Your task to perform on an android device: check battery use Image 0: 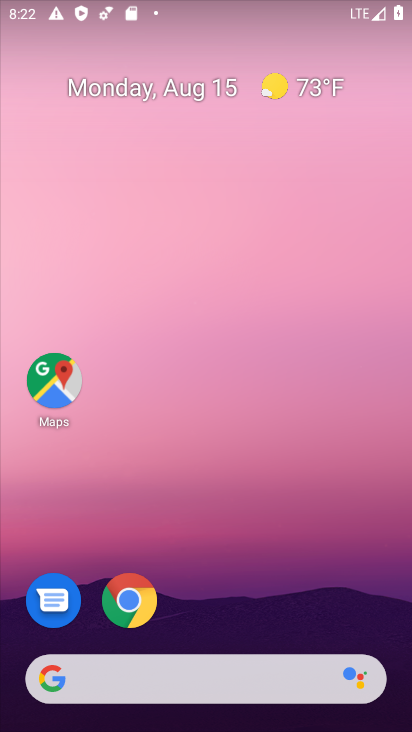
Step 0: drag from (218, 527) to (242, 159)
Your task to perform on an android device: check battery use Image 1: 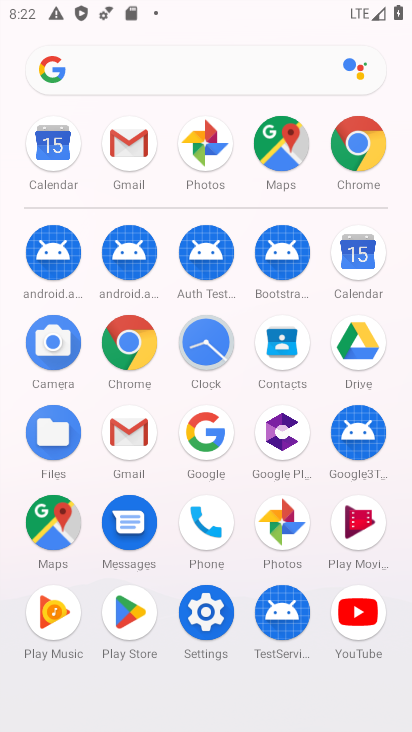
Step 1: click (210, 607)
Your task to perform on an android device: check battery use Image 2: 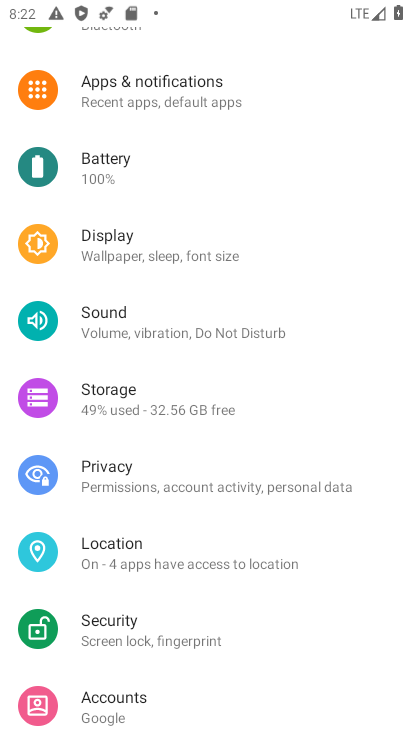
Step 2: click (107, 158)
Your task to perform on an android device: check battery use Image 3: 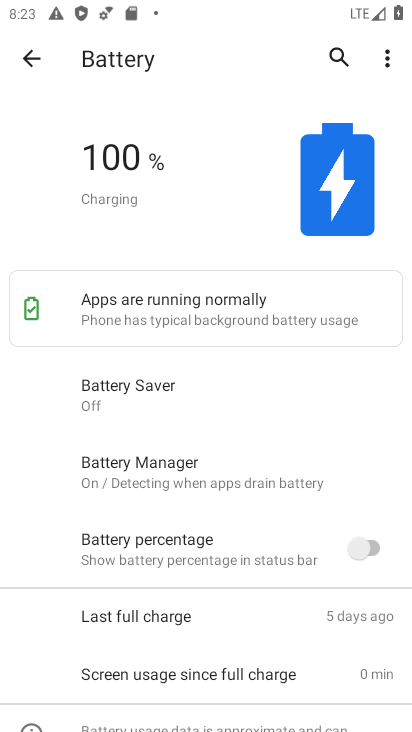
Step 3: click (385, 62)
Your task to perform on an android device: check battery use Image 4: 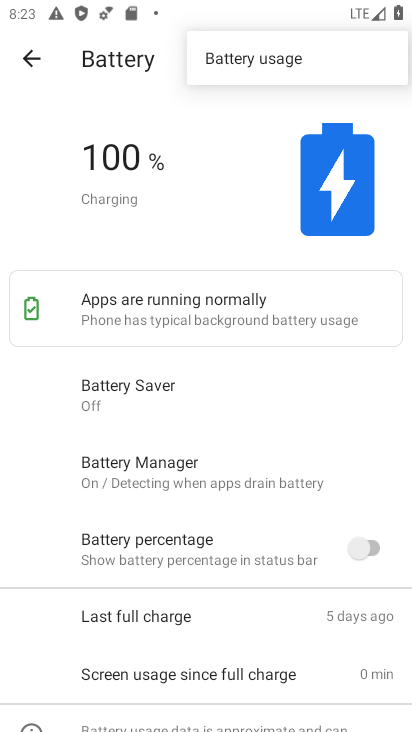
Step 4: click (276, 60)
Your task to perform on an android device: check battery use Image 5: 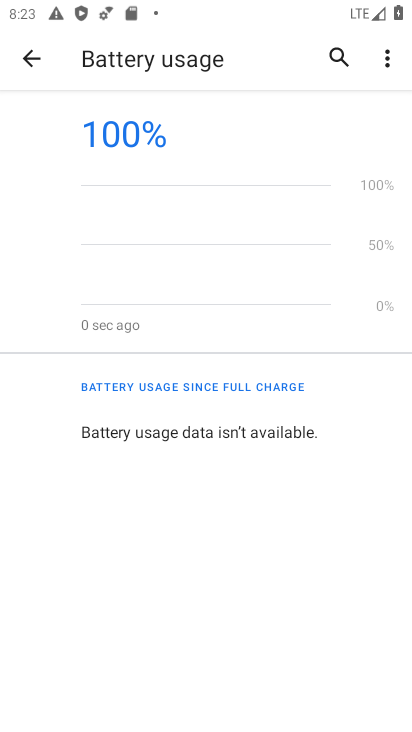
Step 5: task complete